Your task to perform on an android device: delete the emails in spam in the gmail app Image 0: 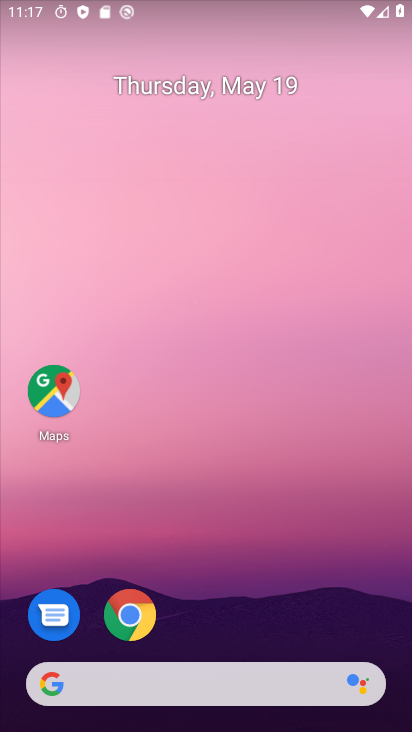
Step 0: drag from (302, 583) to (198, 137)
Your task to perform on an android device: delete the emails in spam in the gmail app Image 1: 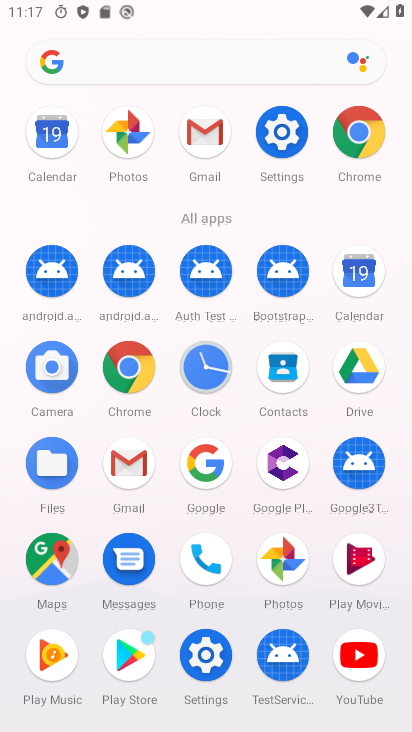
Step 1: click (130, 465)
Your task to perform on an android device: delete the emails in spam in the gmail app Image 2: 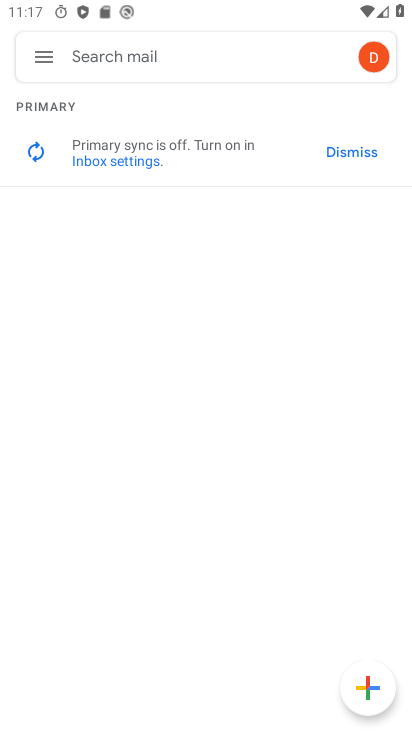
Step 2: click (42, 48)
Your task to perform on an android device: delete the emails in spam in the gmail app Image 3: 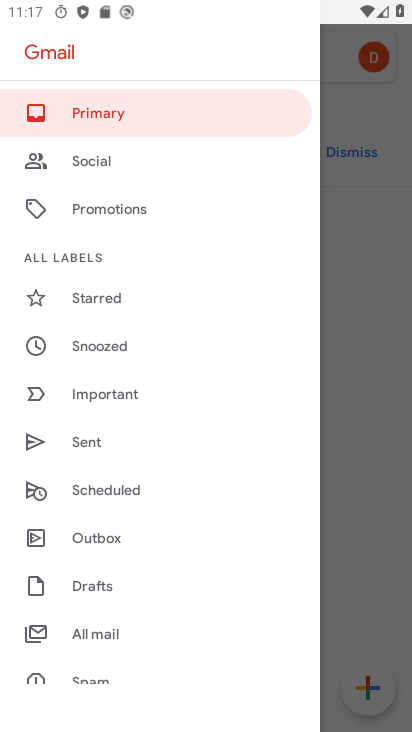
Step 3: click (99, 674)
Your task to perform on an android device: delete the emails in spam in the gmail app Image 4: 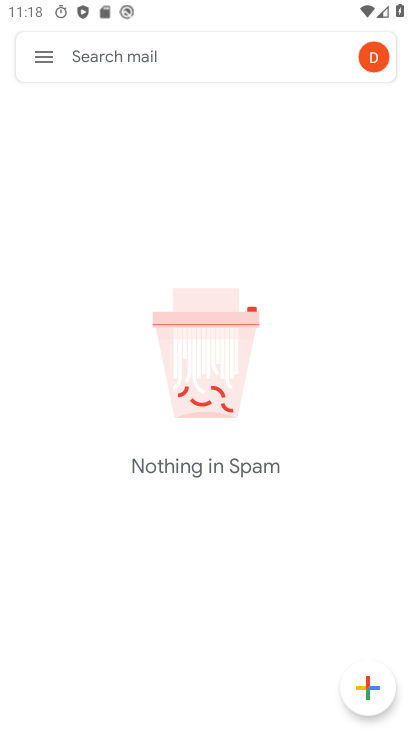
Step 4: task complete